Your task to perform on an android device: Open Google Chrome Image 0: 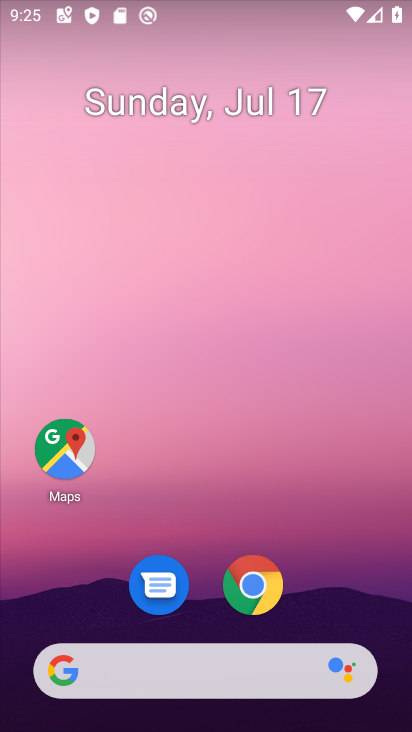
Step 0: click (260, 577)
Your task to perform on an android device: Open Google Chrome Image 1: 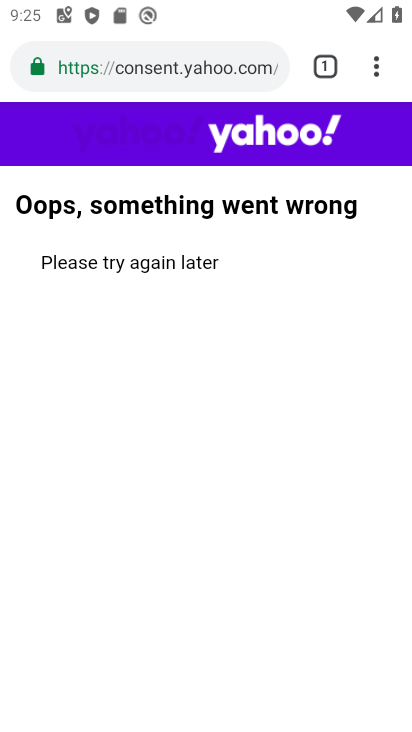
Step 1: click (373, 74)
Your task to perform on an android device: Open Google Chrome Image 2: 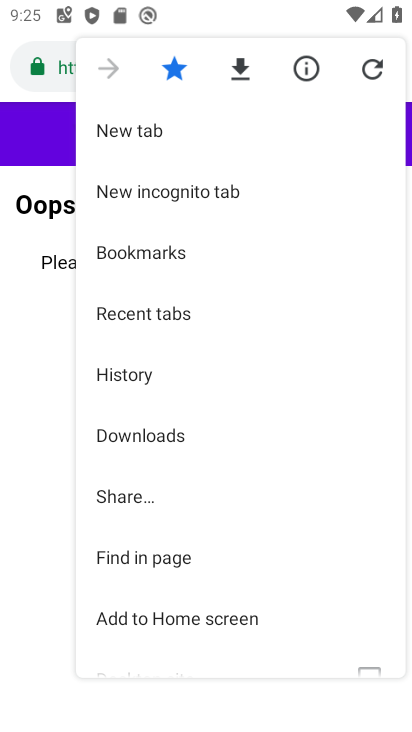
Step 2: click (276, 126)
Your task to perform on an android device: Open Google Chrome Image 3: 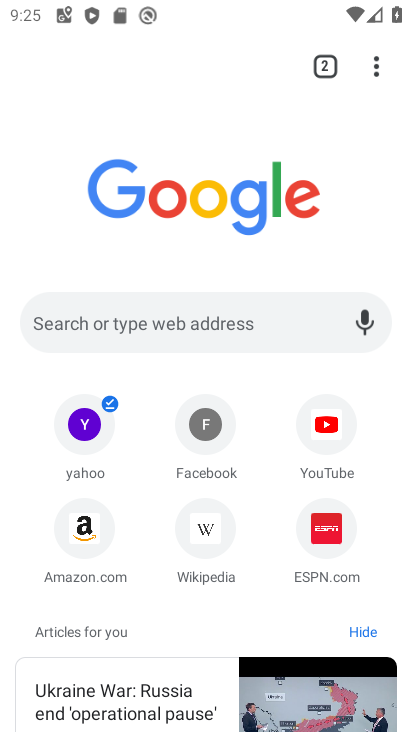
Step 3: task complete